Your task to perform on an android device: snooze an email in the gmail app Image 0: 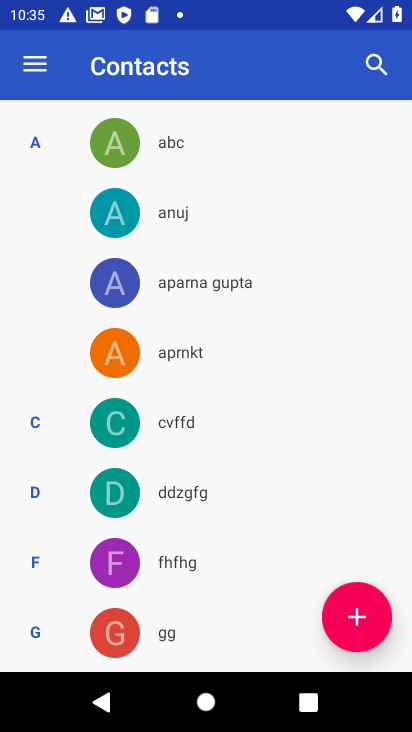
Step 0: press home button
Your task to perform on an android device: snooze an email in the gmail app Image 1: 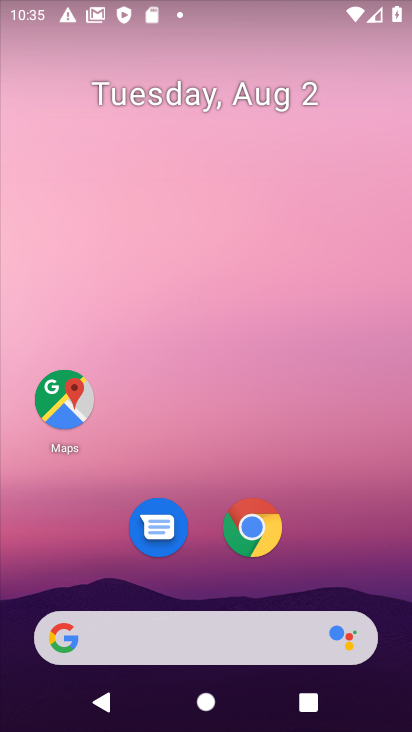
Step 1: drag from (203, 575) to (212, 25)
Your task to perform on an android device: snooze an email in the gmail app Image 2: 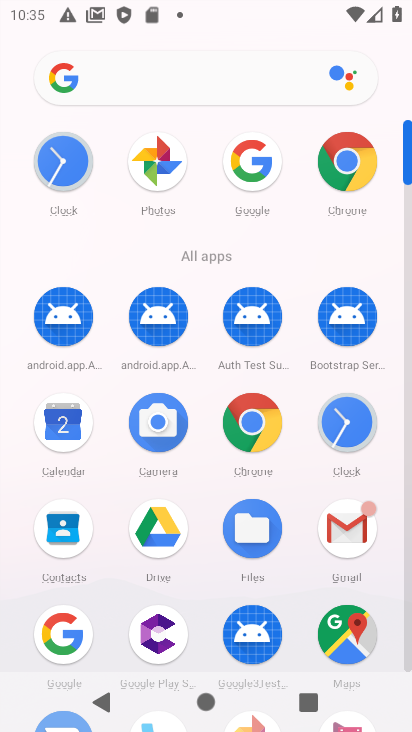
Step 2: click (344, 514)
Your task to perform on an android device: snooze an email in the gmail app Image 3: 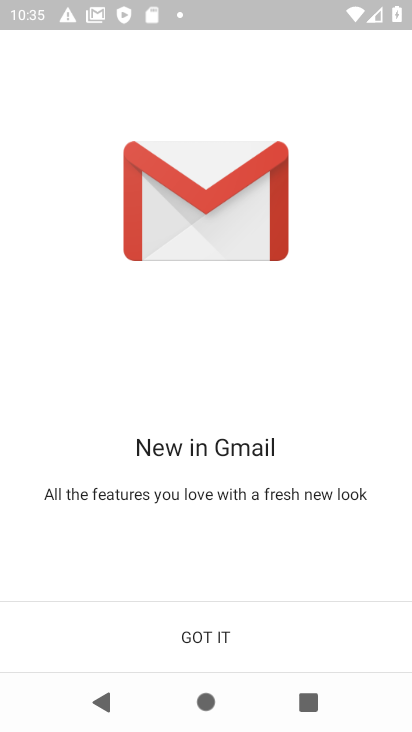
Step 3: click (208, 644)
Your task to perform on an android device: snooze an email in the gmail app Image 4: 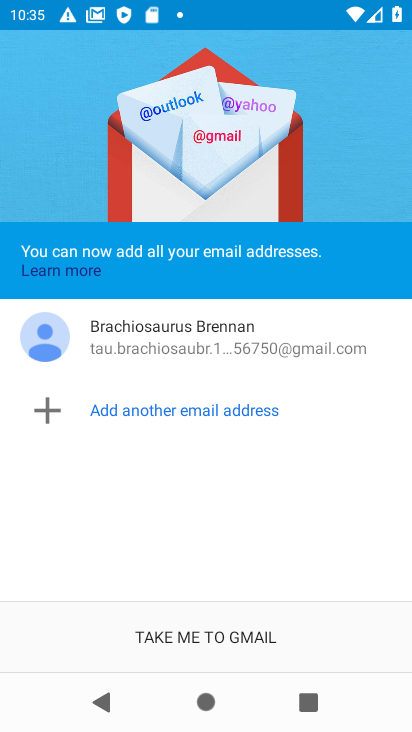
Step 4: click (203, 646)
Your task to perform on an android device: snooze an email in the gmail app Image 5: 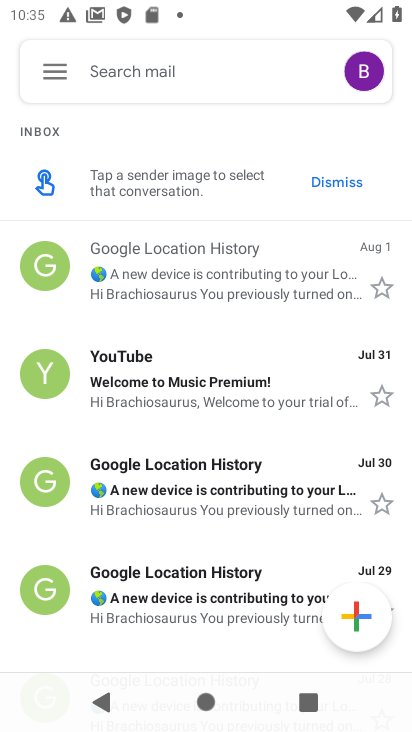
Step 5: click (50, 258)
Your task to perform on an android device: snooze an email in the gmail app Image 6: 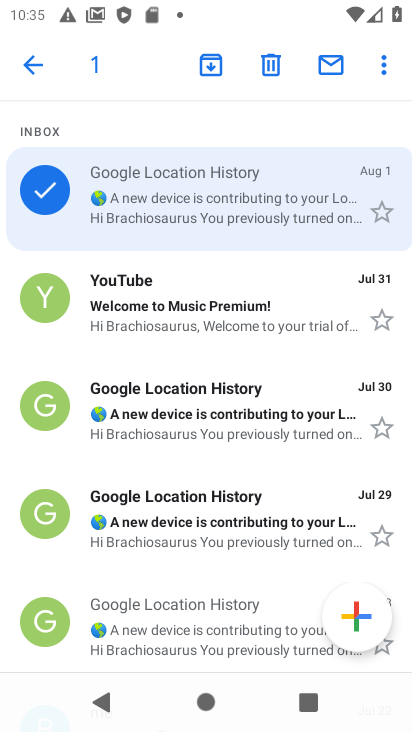
Step 6: click (384, 63)
Your task to perform on an android device: snooze an email in the gmail app Image 7: 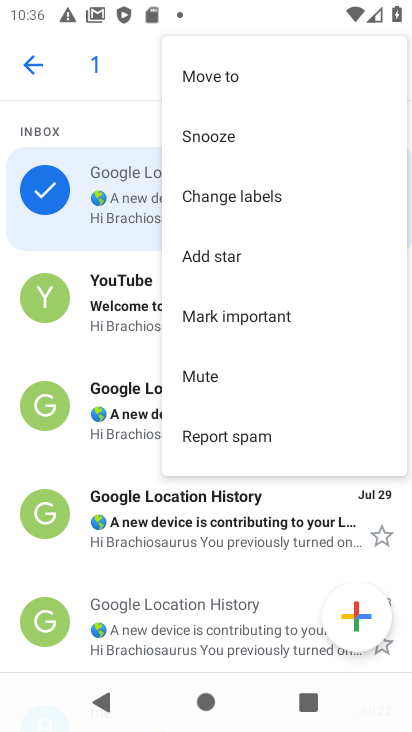
Step 7: click (234, 131)
Your task to perform on an android device: snooze an email in the gmail app Image 8: 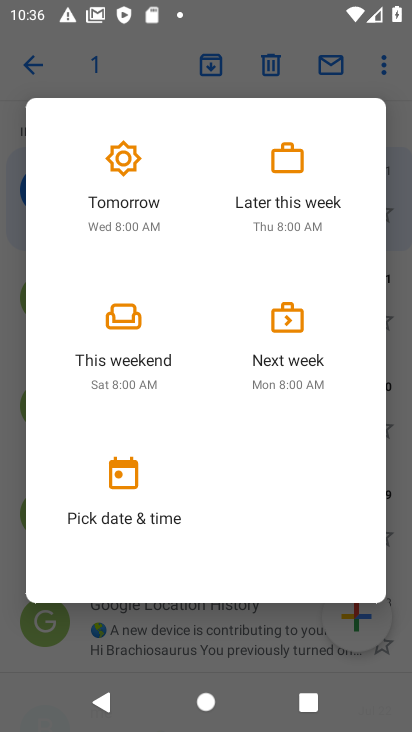
Step 8: click (120, 333)
Your task to perform on an android device: snooze an email in the gmail app Image 9: 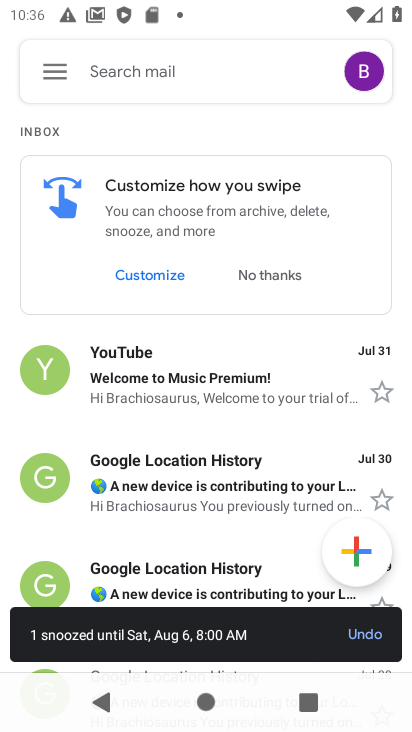
Step 9: task complete